Your task to perform on an android device: Go to wifi settings Image 0: 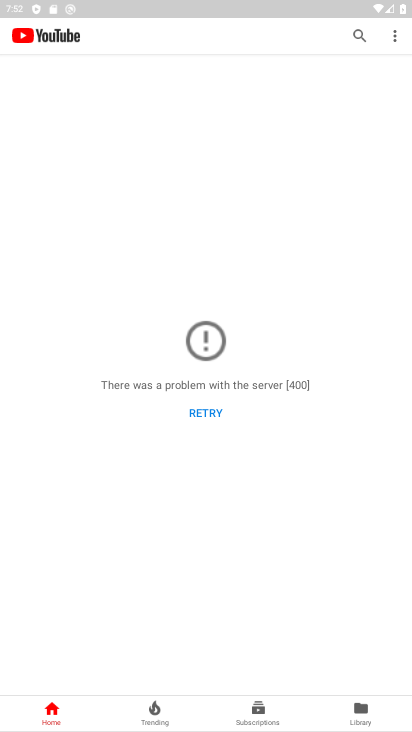
Step 0: drag from (232, 687) to (185, 83)
Your task to perform on an android device: Go to wifi settings Image 1: 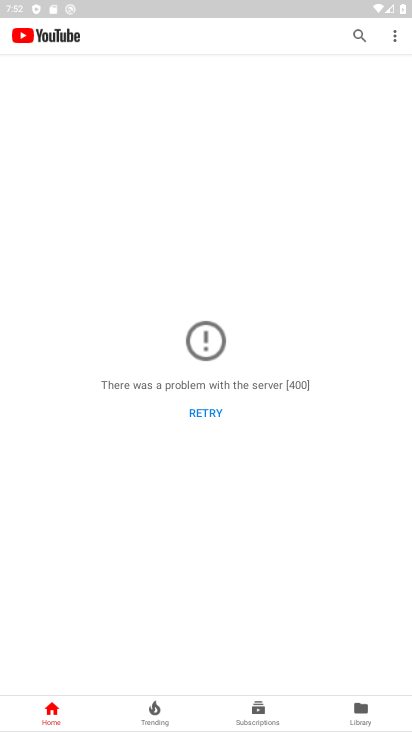
Step 1: press back button
Your task to perform on an android device: Go to wifi settings Image 2: 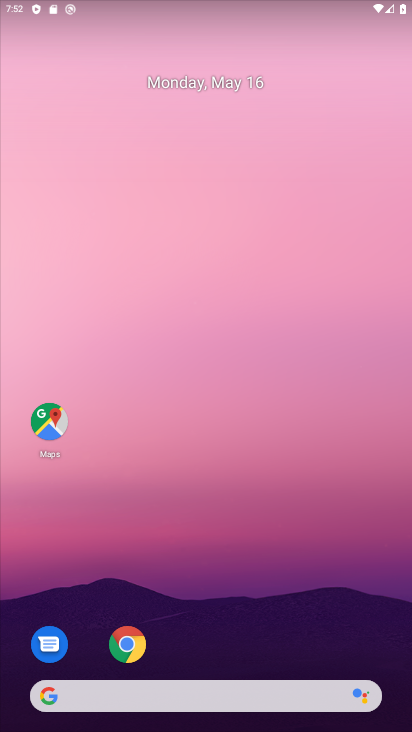
Step 2: drag from (251, 676) to (277, 223)
Your task to perform on an android device: Go to wifi settings Image 3: 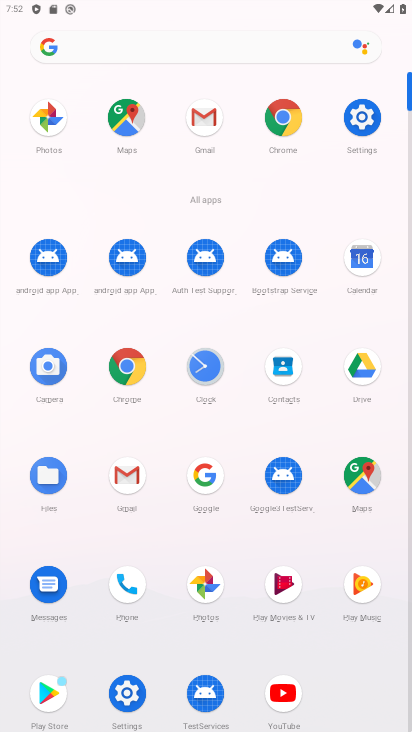
Step 3: click (369, 130)
Your task to perform on an android device: Go to wifi settings Image 4: 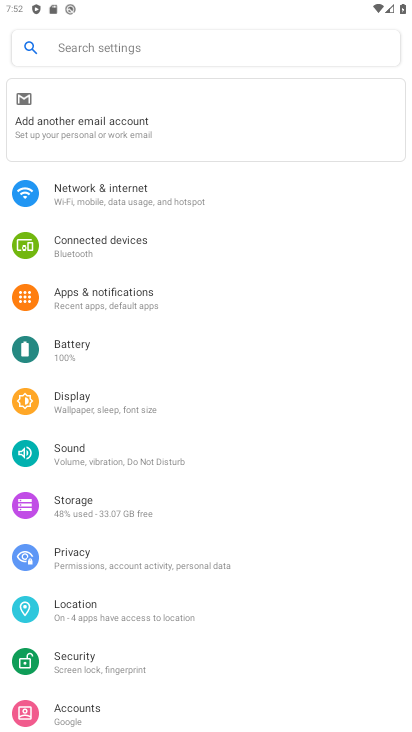
Step 4: click (232, 205)
Your task to perform on an android device: Go to wifi settings Image 5: 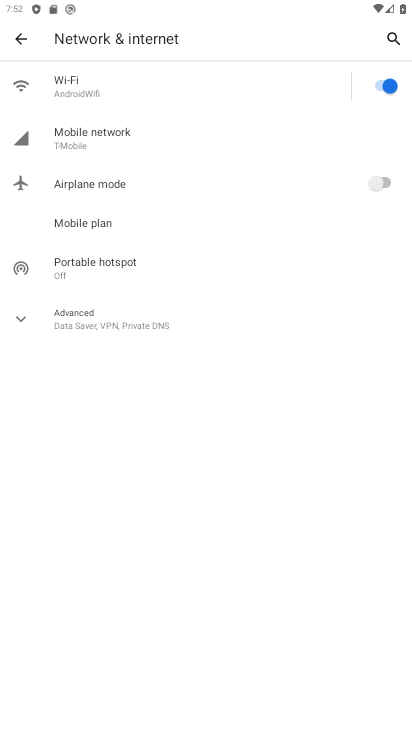
Step 5: click (195, 78)
Your task to perform on an android device: Go to wifi settings Image 6: 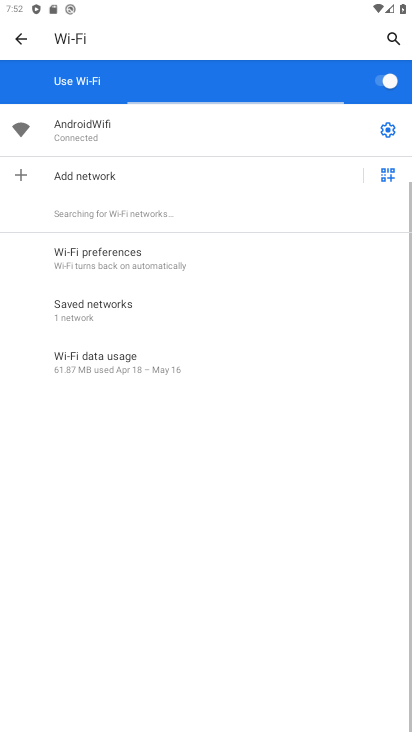
Step 6: task complete